Your task to perform on an android device: Open sound settings Image 0: 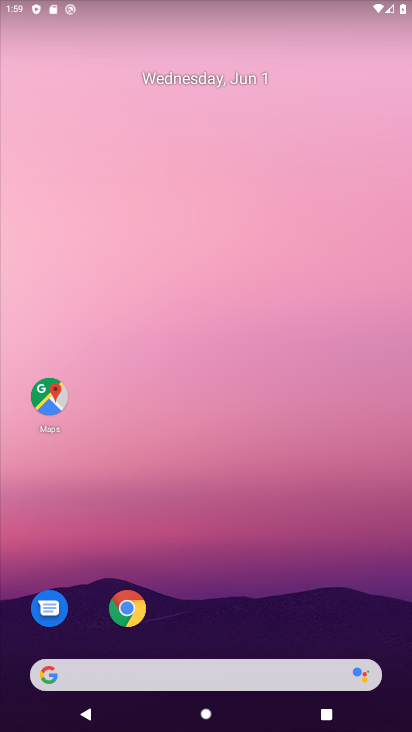
Step 0: drag from (347, 615) to (229, 54)
Your task to perform on an android device: Open sound settings Image 1: 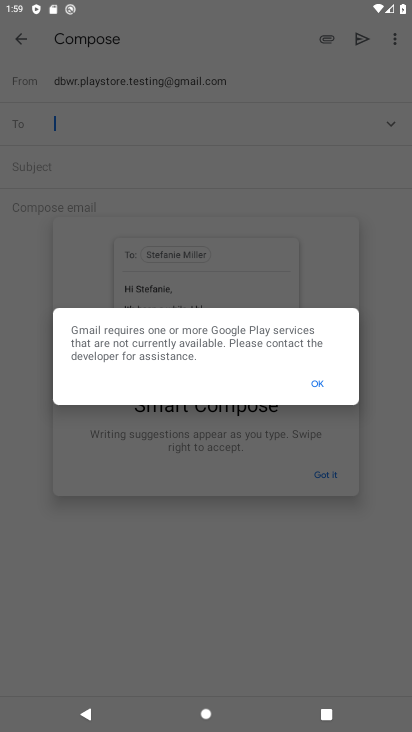
Step 1: press home button
Your task to perform on an android device: Open sound settings Image 2: 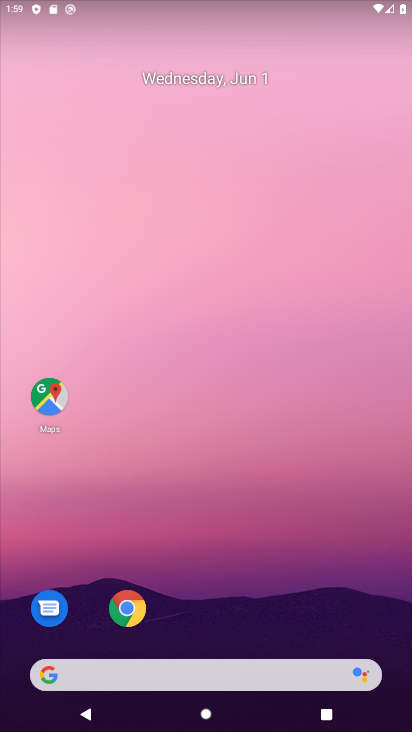
Step 2: click (370, 618)
Your task to perform on an android device: Open sound settings Image 3: 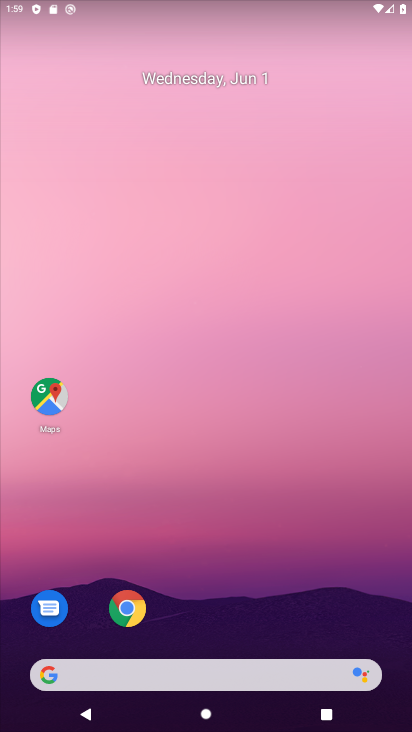
Step 3: drag from (288, 330) to (216, 42)
Your task to perform on an android device: Open sound settings Image 4: 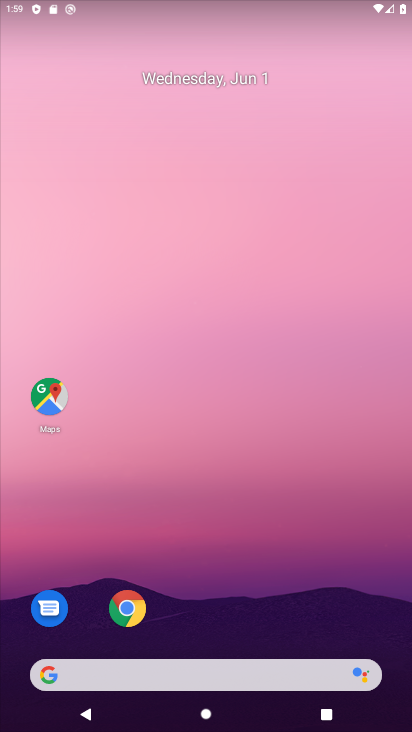
Step 4: drag from (329, 623) to (222, 62)
Your task to perform on an android device: Open sound settings Image 5: 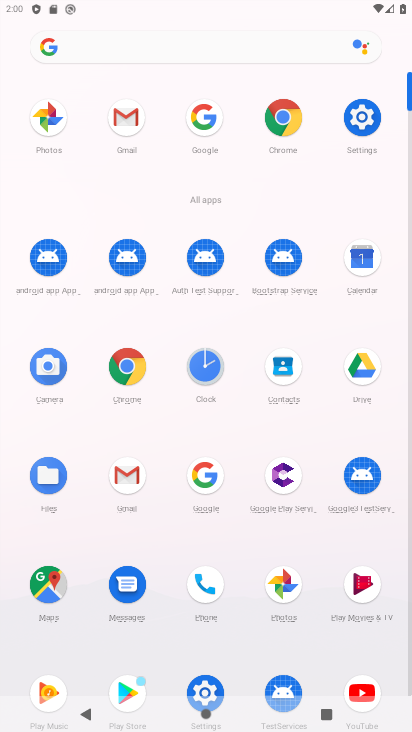
Step 5: click (199, 675)
Your task to perform on an android device: Open sound settings Image 6: 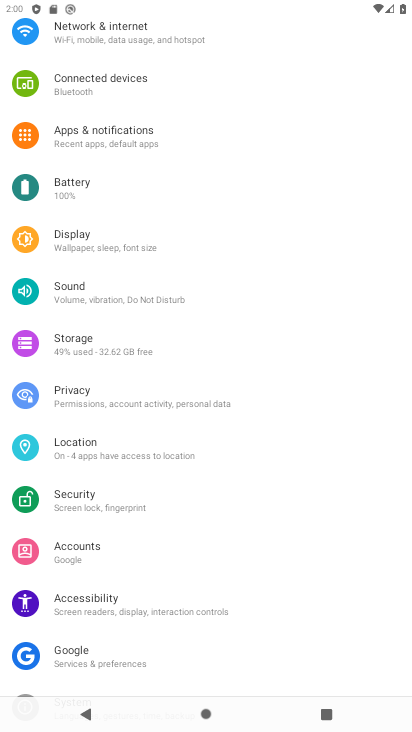
Step 6: click (97, 314)
Your task to perform on an android device: Open sound settings Image 7: 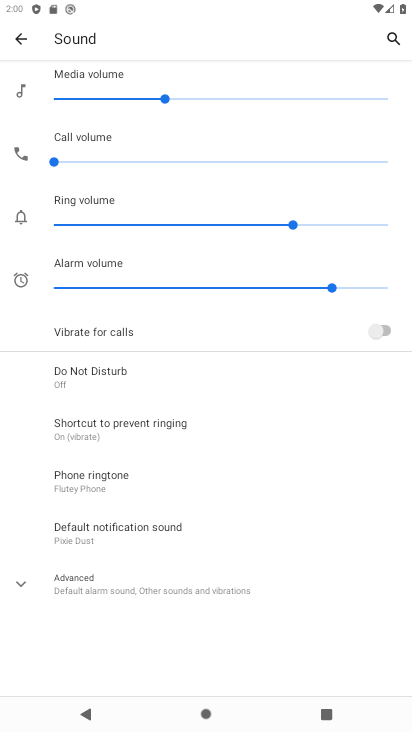
Step 7: task complete